Your task to perform on an android device: Open calendar and show me the third week of next month Image 0: 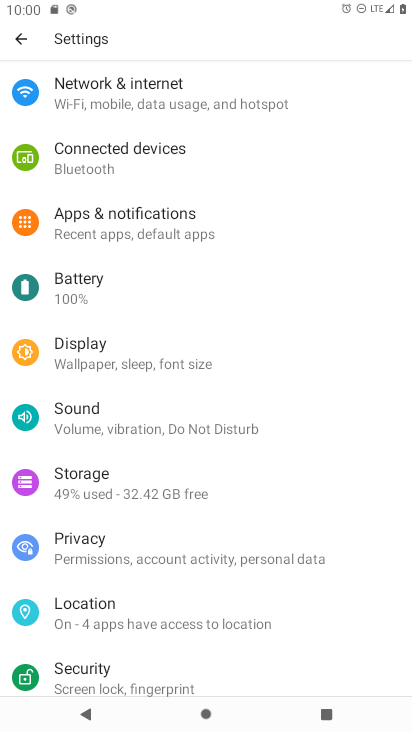
Step 0: press home button
Your task to perform on an android device: Open calendar and show me the third week of next month Image 1: 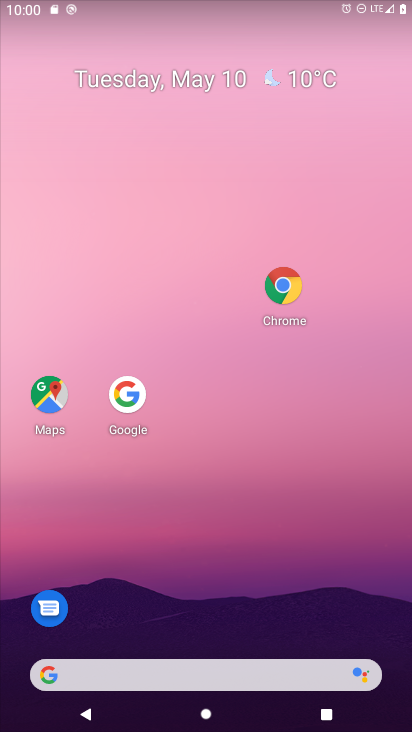
Step 1: drag from (168, 674) to (242, 215)
Your task to perform on an android device: Open calendar and show me the third week of next month Image 2: 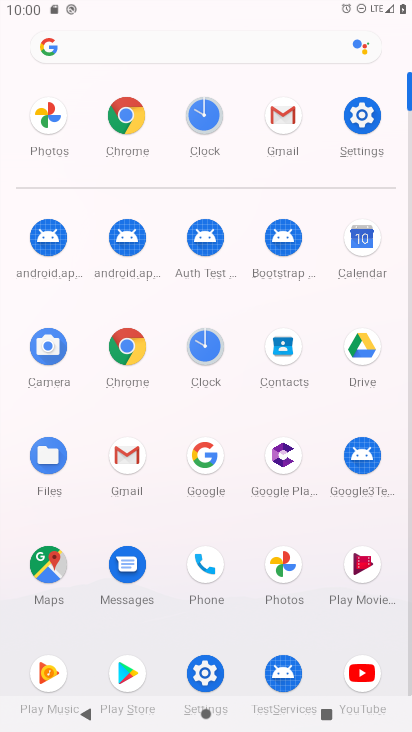
Step 2: click (363, 245)
Your task to perform on an android device: Open calendar and show me the third week of next month Image 3: 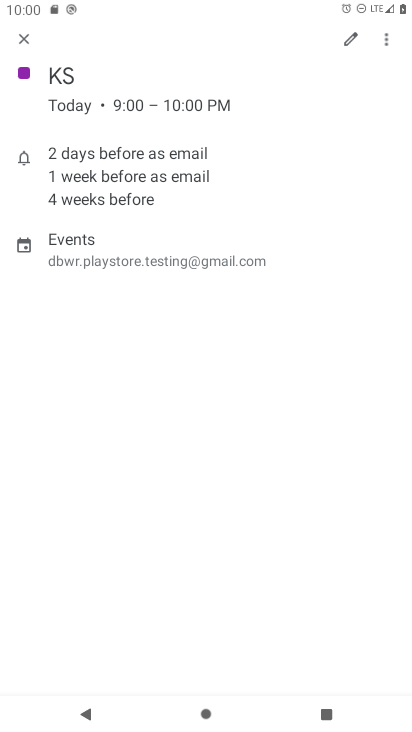
Step 3: click (20, 37)
Your task to perform on an android device: Open calendar and show me the third week of next month Image 4: 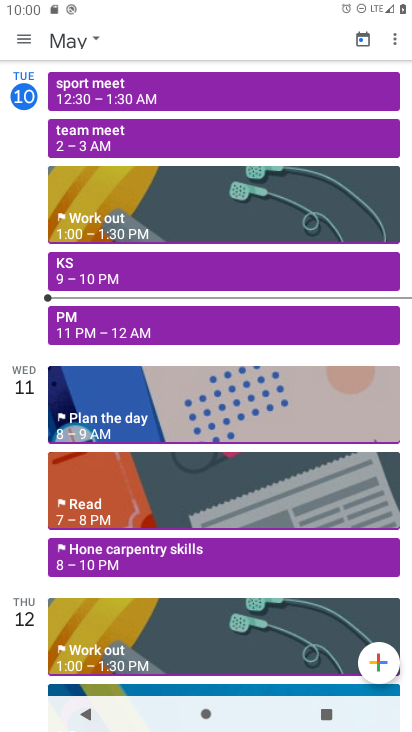
Step 4: click (78, 42)
Your task to perform on an android device: Open calendar and show me the third week of next month Image 5: 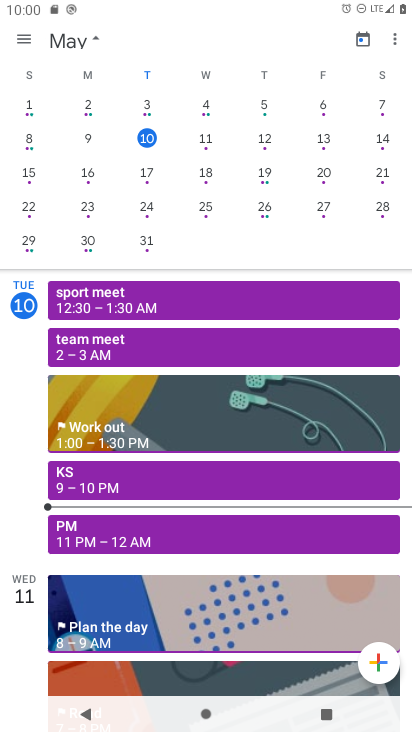
Step 5: drag from (382, 192) to (20, 187)
Your task to perform on an android device: Open calendar and show me the third week of next month Image 6: 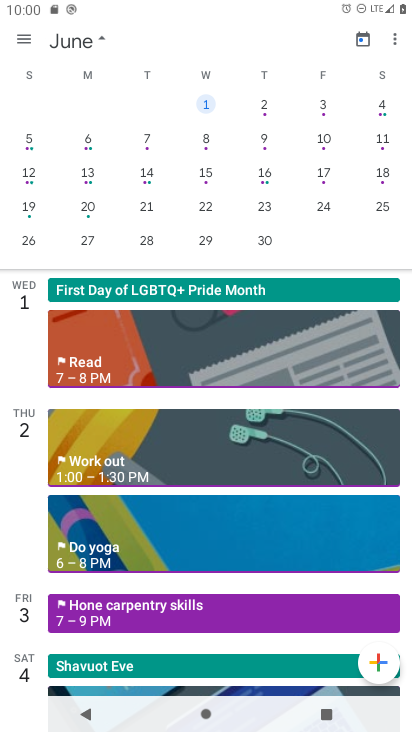
Step 6: click (28, 176)
Your task to perform on an android device: Open calendar and show me the third week of next month Image 7: 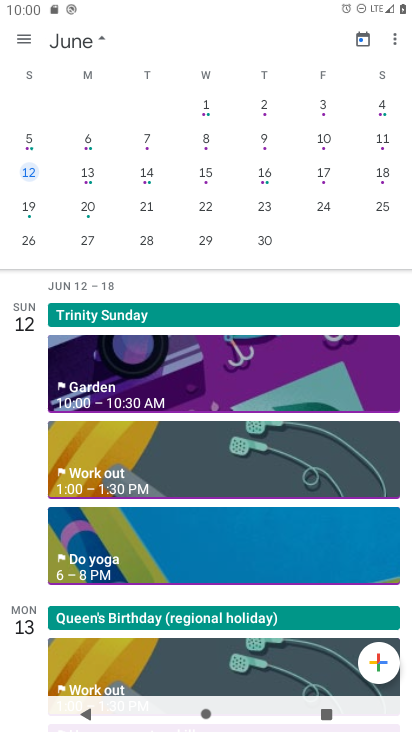
Step 7: click (23, 40)
Your task to perform on an android device: Open calendar and show me the third week of next month Image 8: 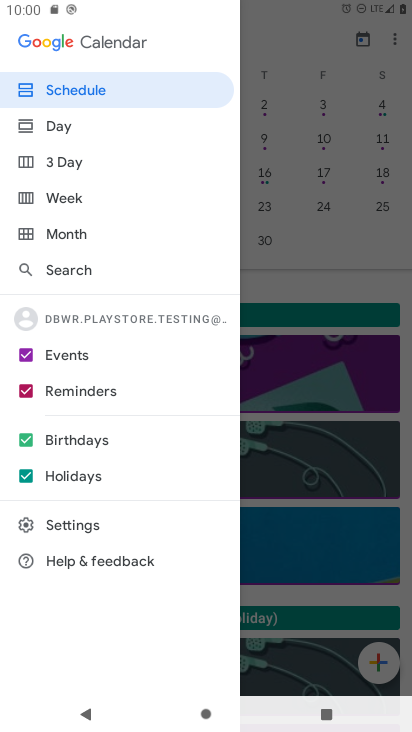
Step 8: click (70, 197)
Your task to perform on an android device: Open calendar and show me the third week of next month Image 9: 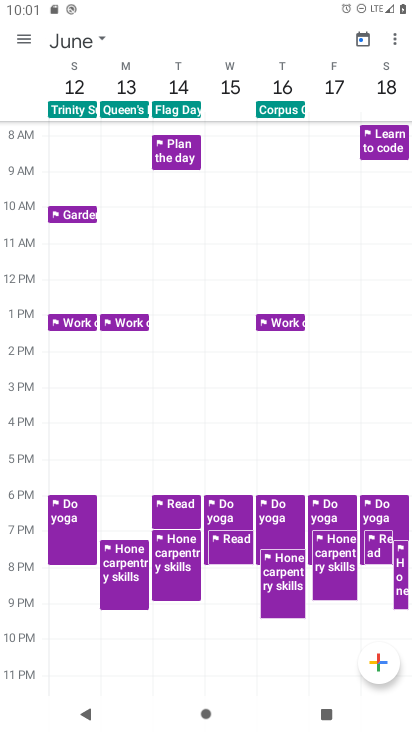
Step 9: task complete